Your task to perform on an android device: toggle notifications settings in the gmail app Image 0: 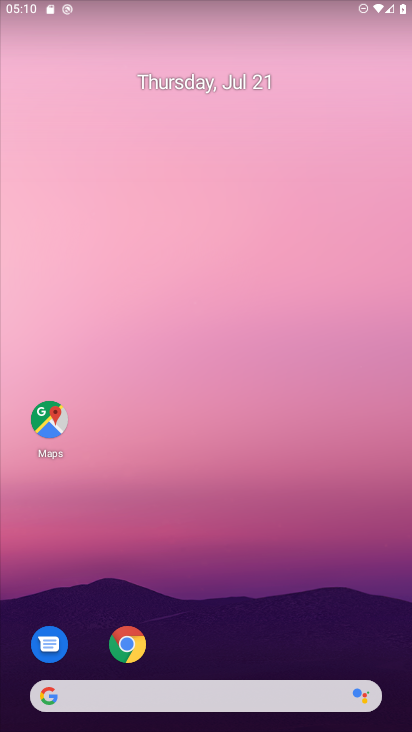
Step 0: drag from (191, 602) to (191, 231)
Your task to perform on an android device: toggle notifications settings in the gmail app Image 1: 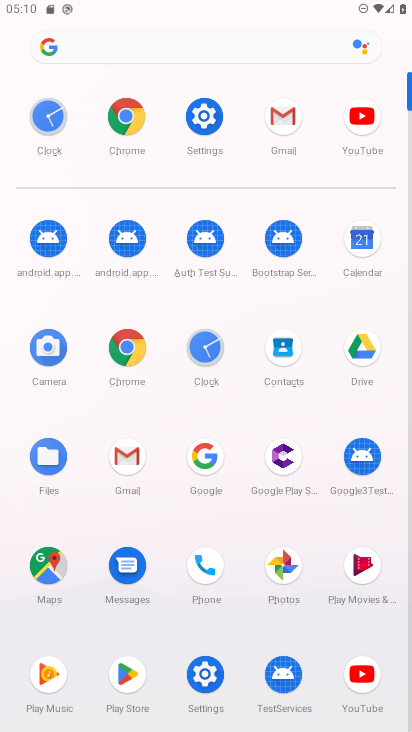
Step 1: click (202, 116)
Your task to perform on an android device: toggle notifications settings in the gmail app Image 2: 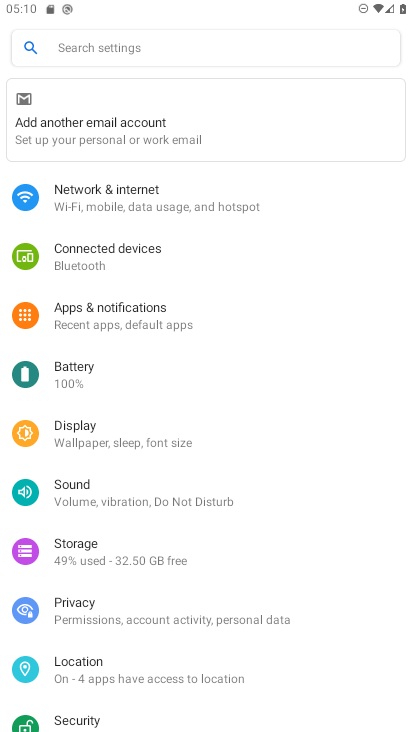
Step 2: click (167, 314)
Your task to perform on an android device: toggle notifications settings in the gmail app Image 3: 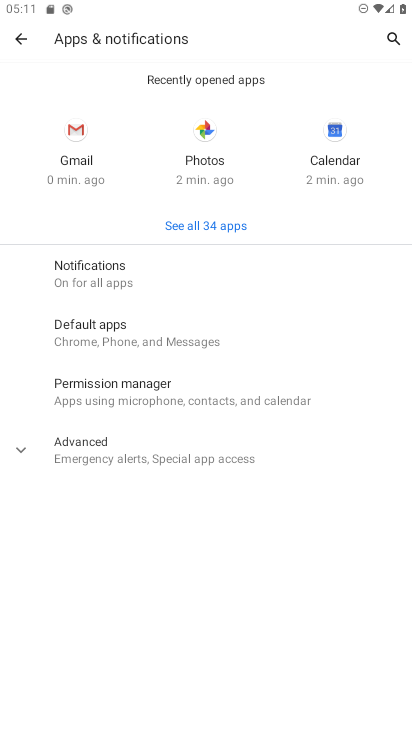
Step 3: click (98, 285)
Your task to perform on an android device: toggle notifications settings in the gmail app Image 4: 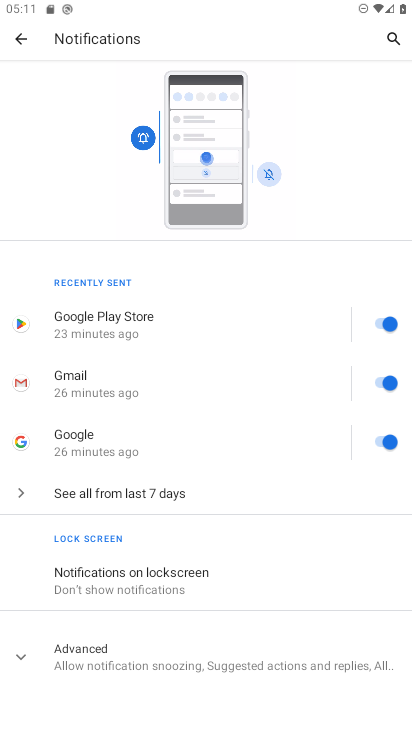
Step 4: click (146, 588)
Your task to perform on an android device: toggle notifications settings in the gmail app Image 5: 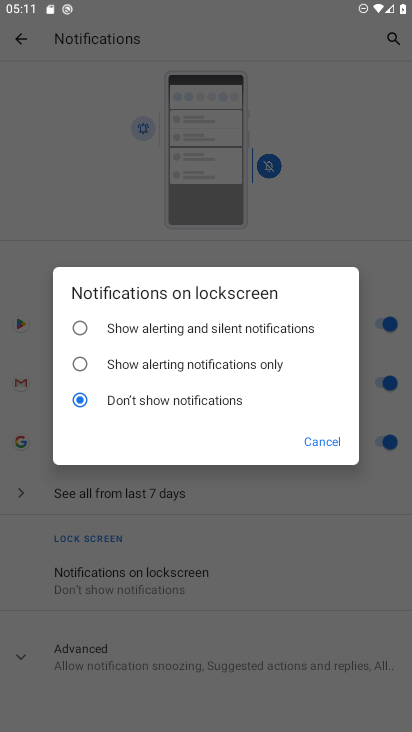
Step 5: click (82, 332)
Your task to perform on an android device: toggle notifications settings in the gmail app Image 6: 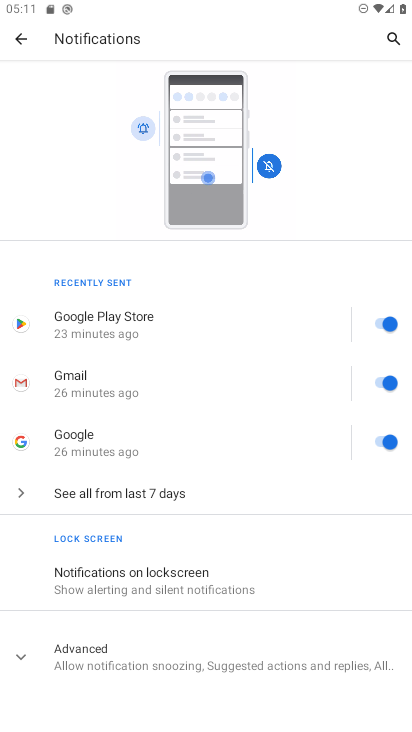
Step 6: task complete